Your task to perform on an android device: toggle location history Image 0: 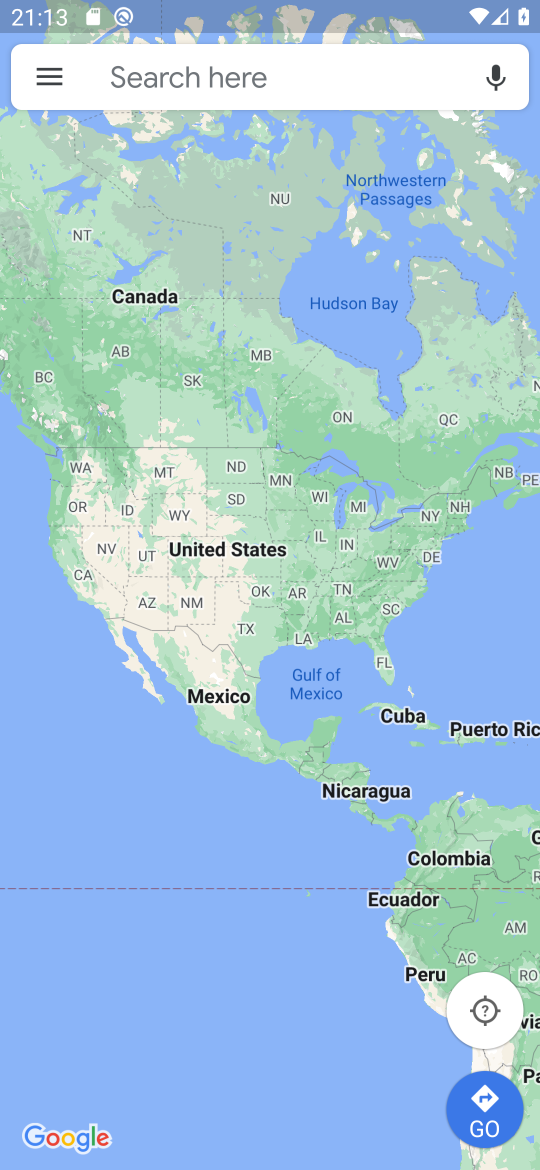
Step 0: press home button
Your task to perform on an android device: toggle location history Image 1: 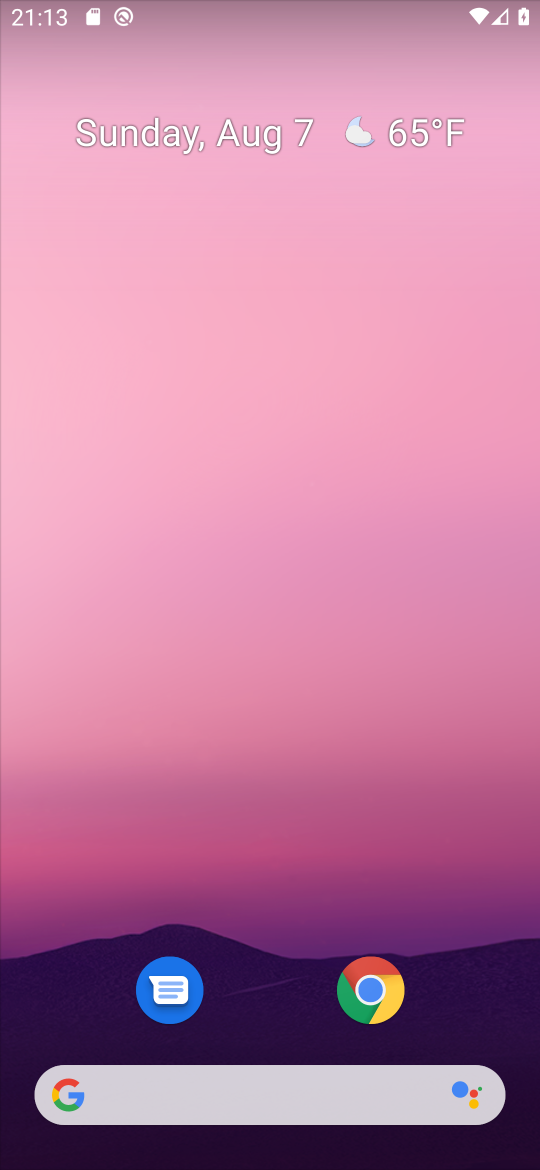
Step 1: drag from (174, 404) to (183, 75)
Your task to perform on an android device: toggle location history Image 2: 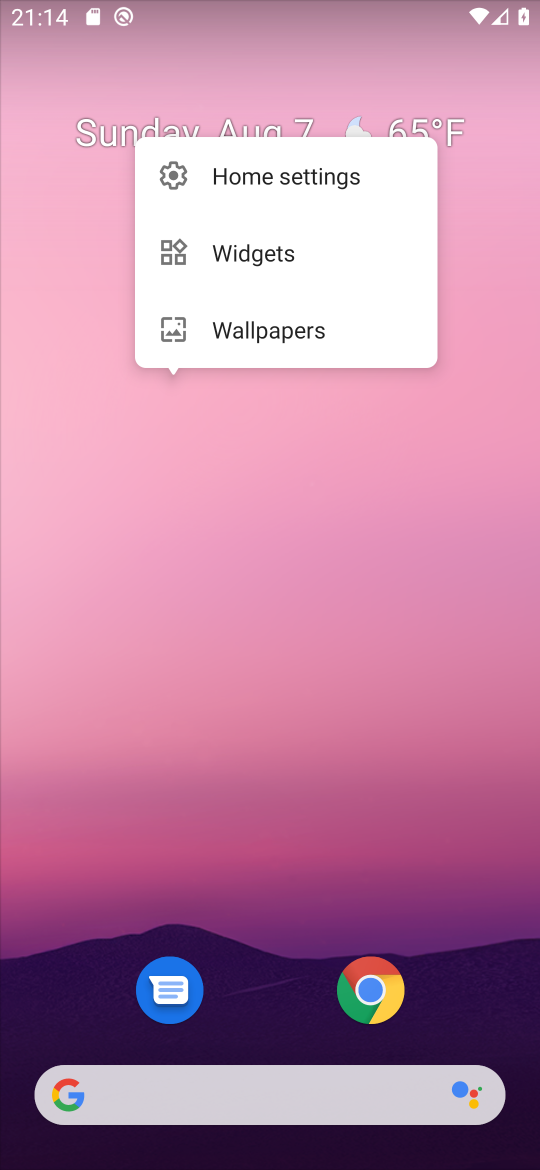
Step 2: click (275, 869)
Your task to perform on an android device: toggle location history Image 3: 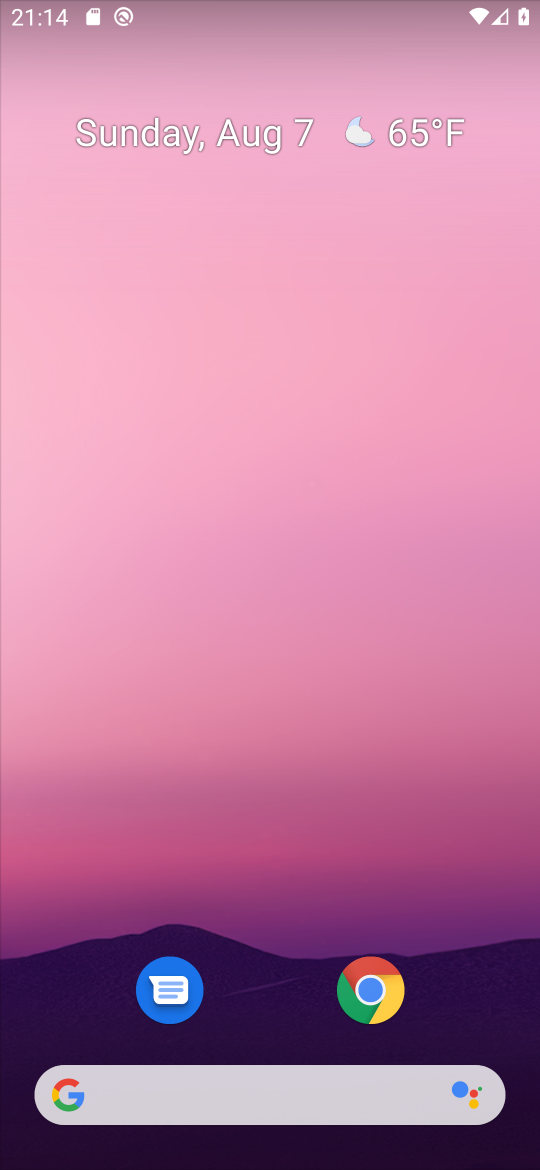
Step 3: drag from (251, 980) to (337, 0)
Your task to perform on an android device: toggle location history Image 4: 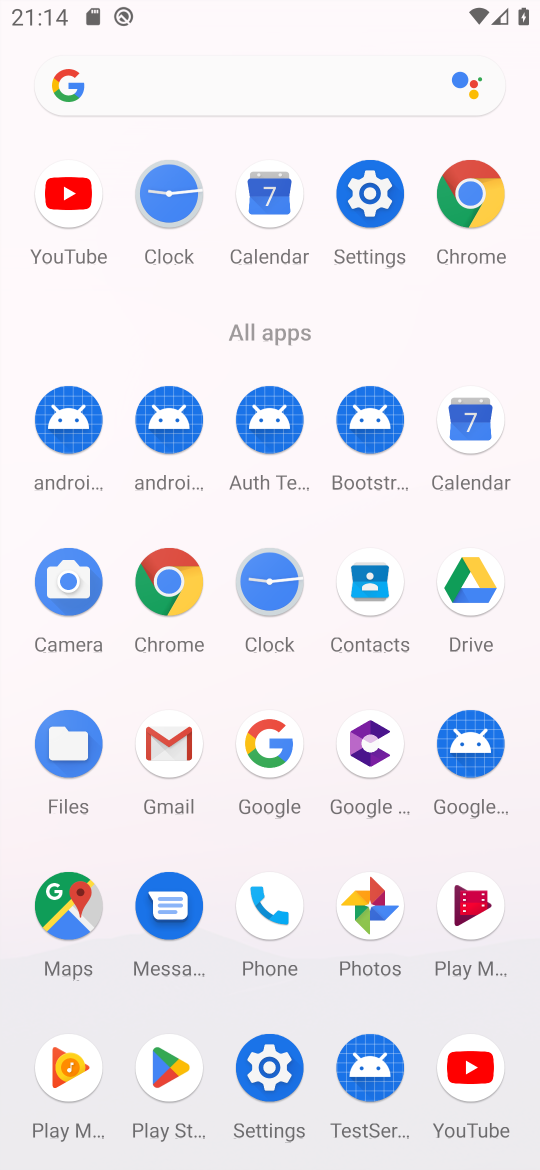
Step 4: click (369, 181)
Your task to perform on an android device: toggle location history Image 5: 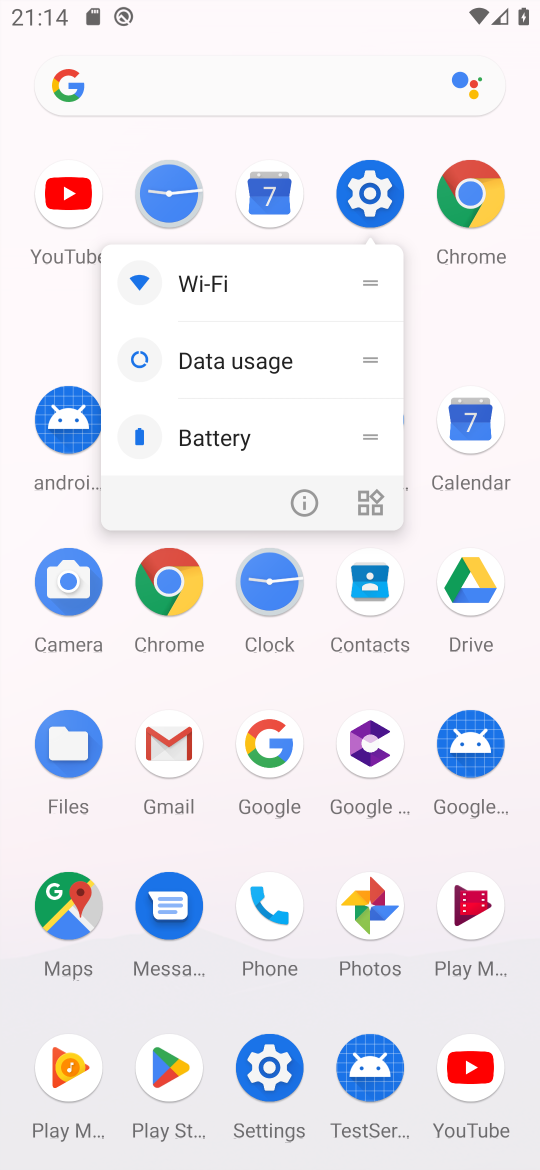
Step 5: click (369, 185)
Your task to perform on an android device: toggle location history Image 6: 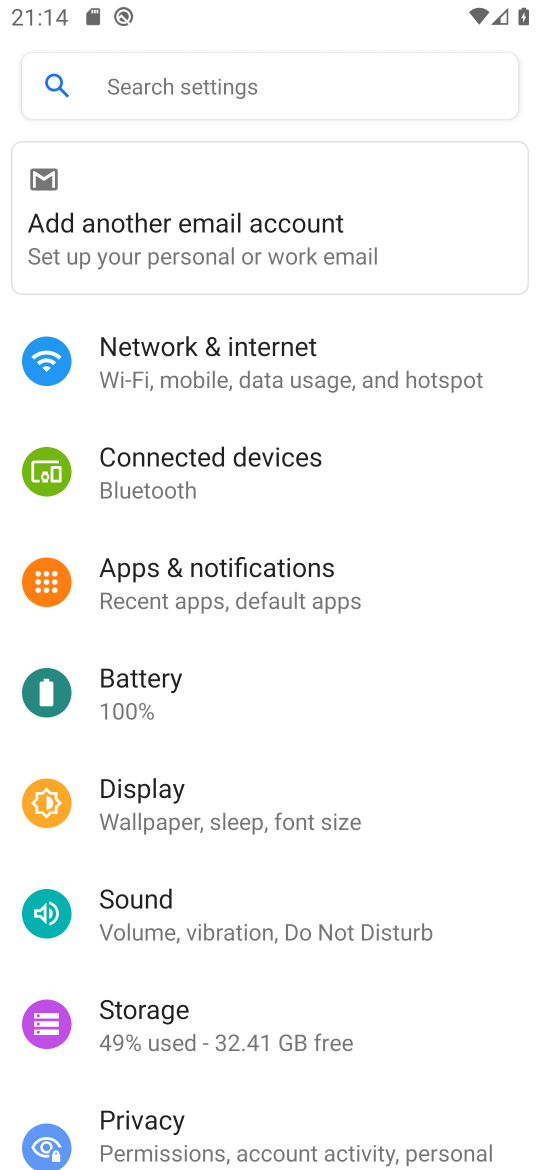
Step 6: drag from (249, 992) to (222, 115)
Your task to perform on an android device: toggle location history Image 7: 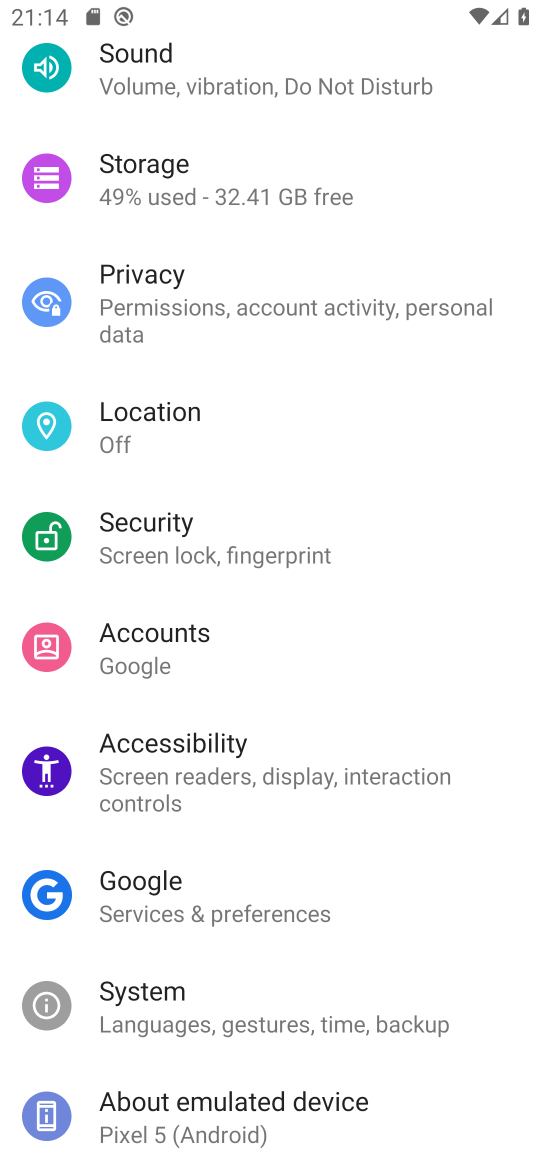
Step 7: click (243, 421)
Your task to perform on an android device: toggle location history Image 8: 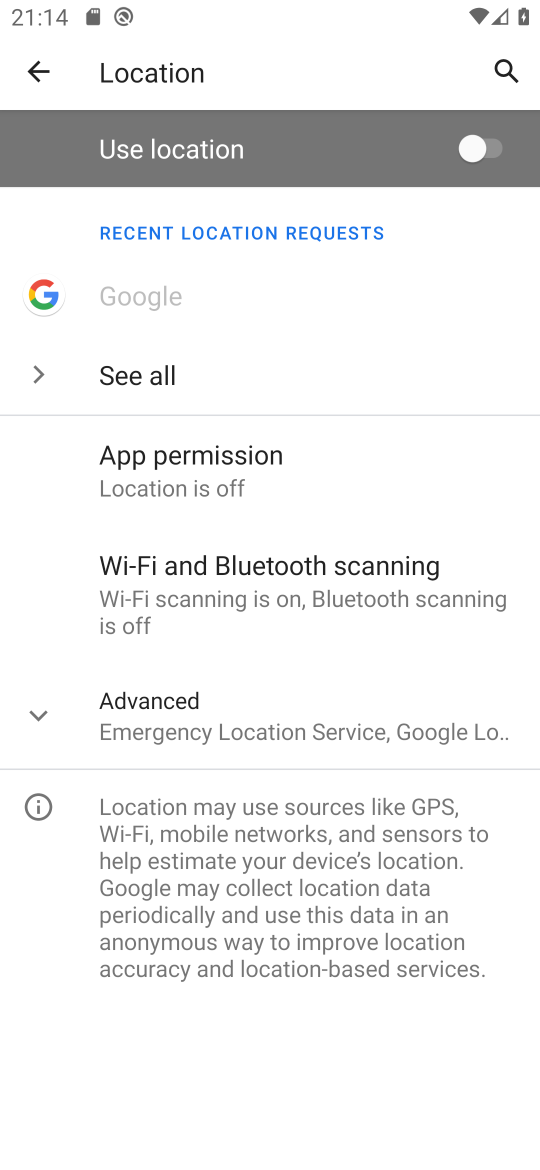
Step 8: click (38, 714)
Your task to perform on an android device: toggle location history Image 9: 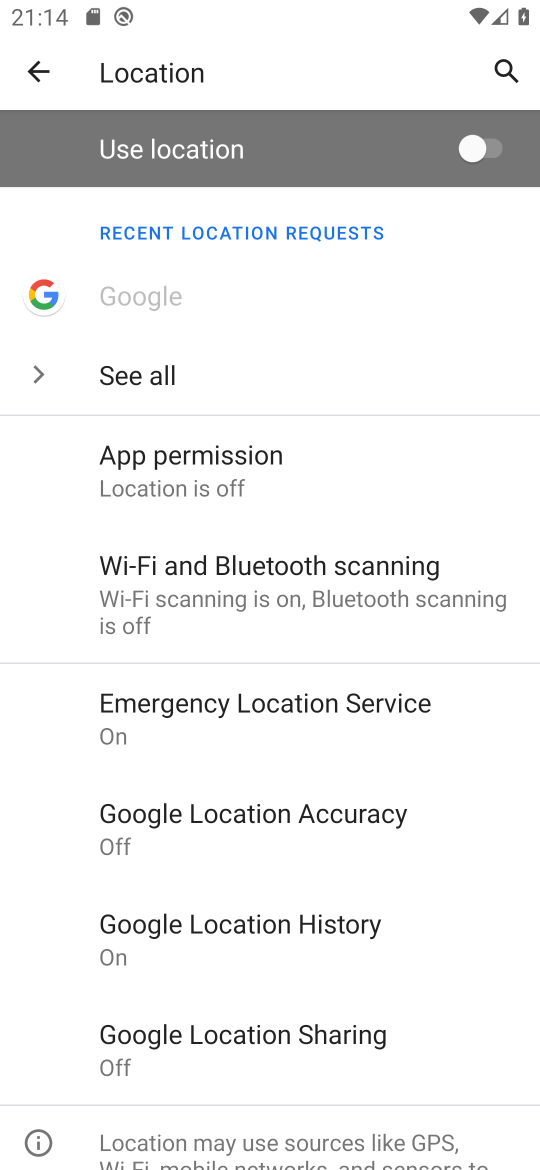
Step 9: click (217, 940)
Your task to perform on an android device: toggle location history Image 10: 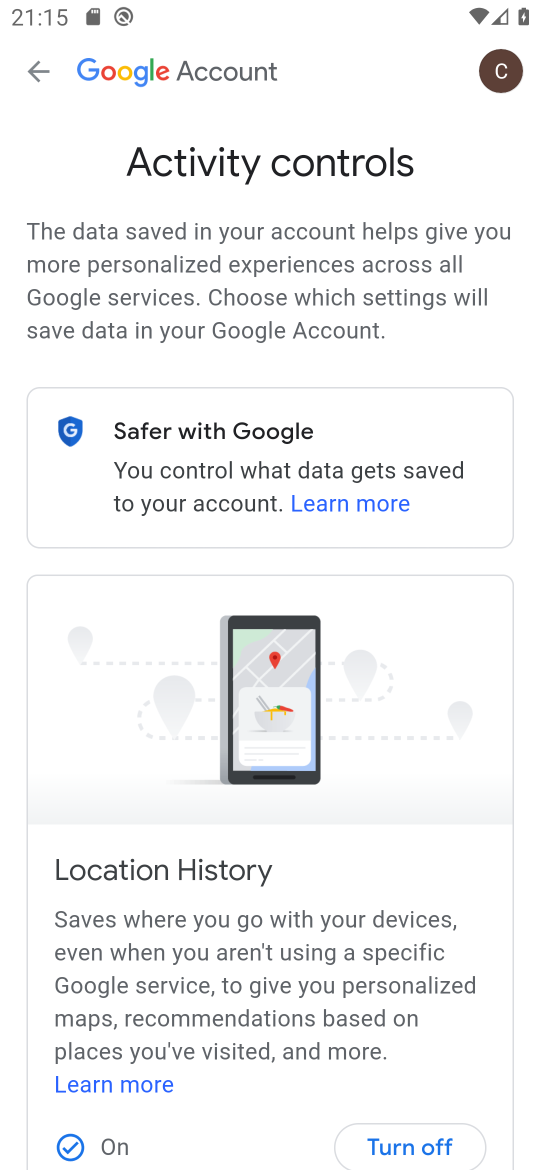
Step 10: click (403, 1136)
Your task to perform on an android device: toggle location history Image 11: 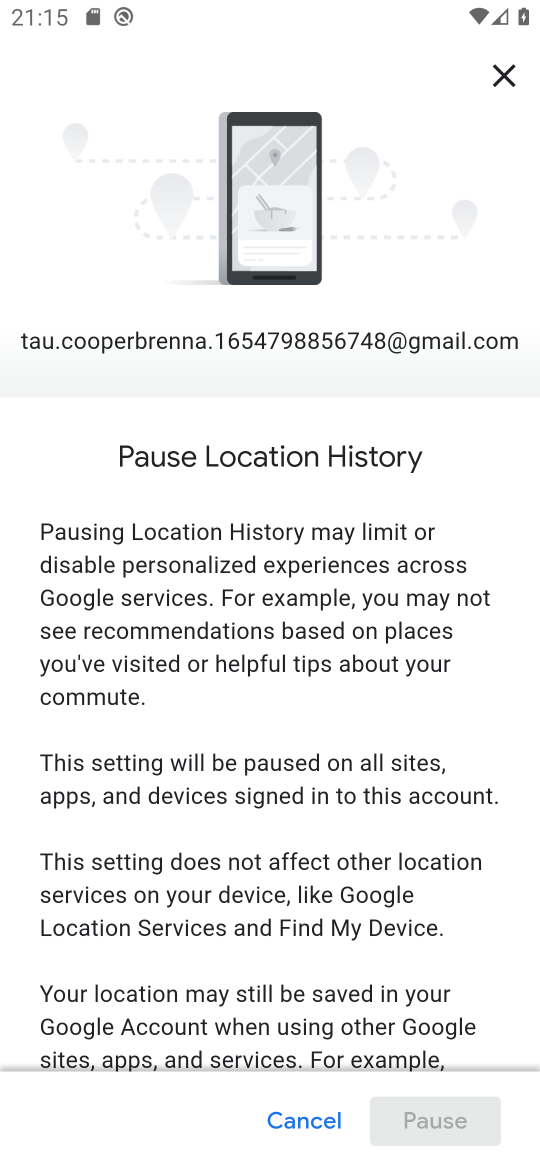
Step 11: drag from (282, 846) to (357, 257)
Your task to perform on an android device: toggle location history Image 12: 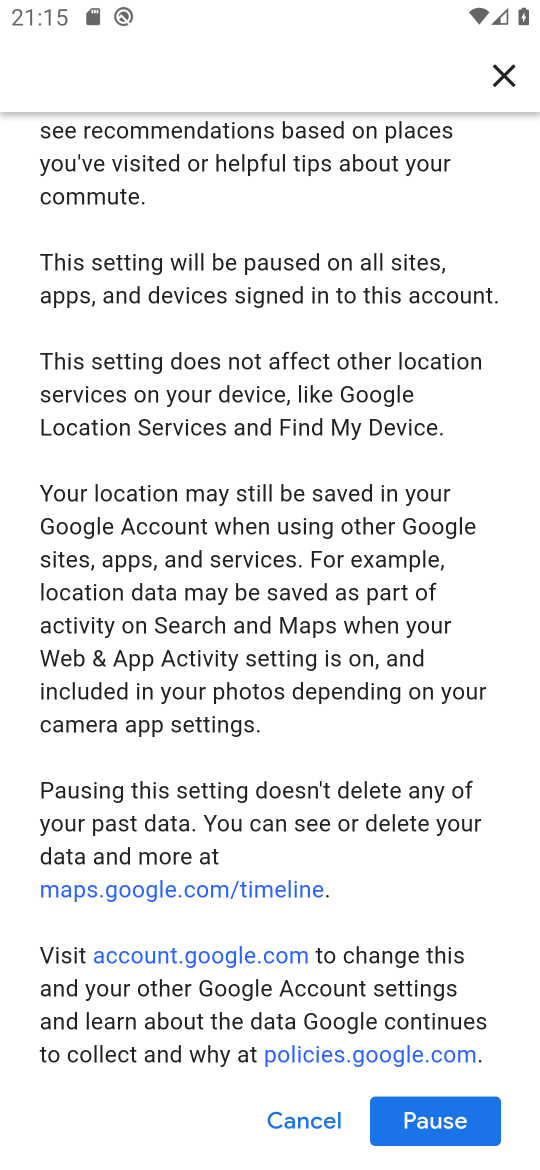
Step 12: click (441, 1127)
Your task to perform on an android device: toggle location history Image 13: 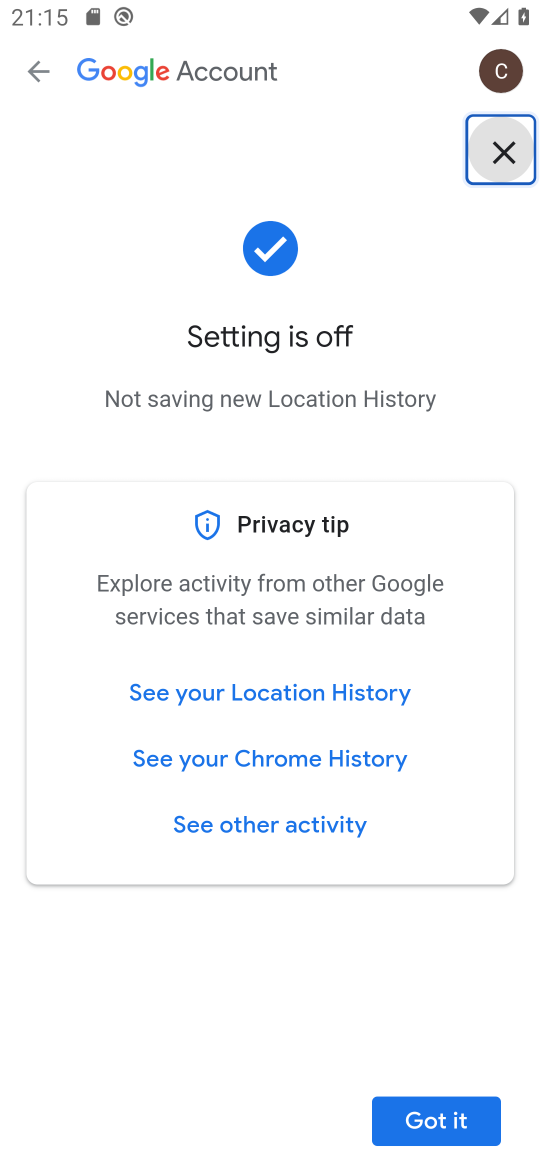
Step 13: click (441, 1125)
Your task to perform on an android device: toggle location history Image 14: 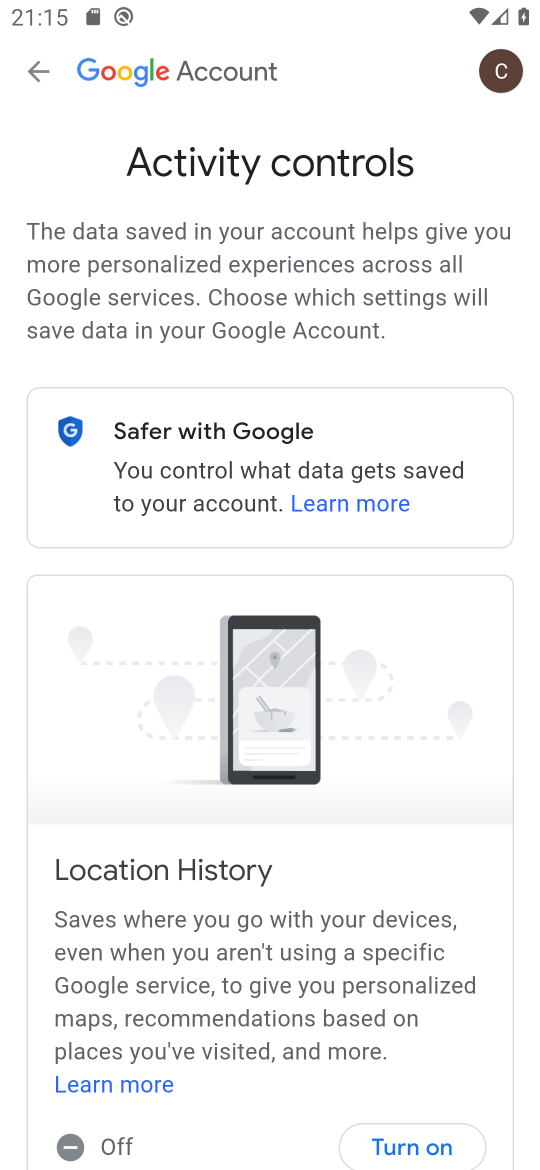
Step 14: task complete